Your task to perform on an android device: delete browsing data in the chrome app Image 0: 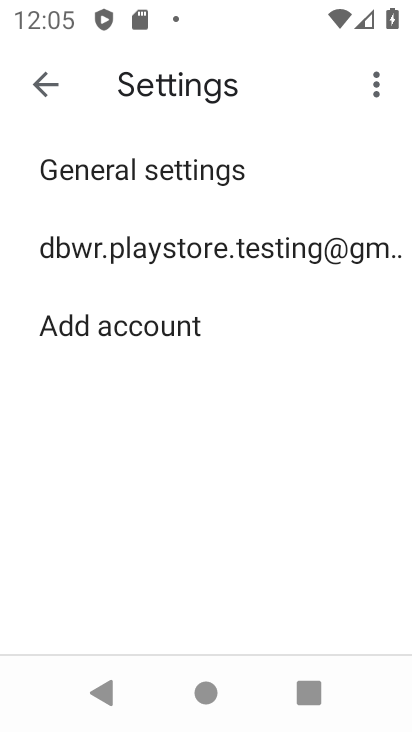
Step 0: press back button
Your task to perform on an android device: delete browsing data in the chrome app Image 1: 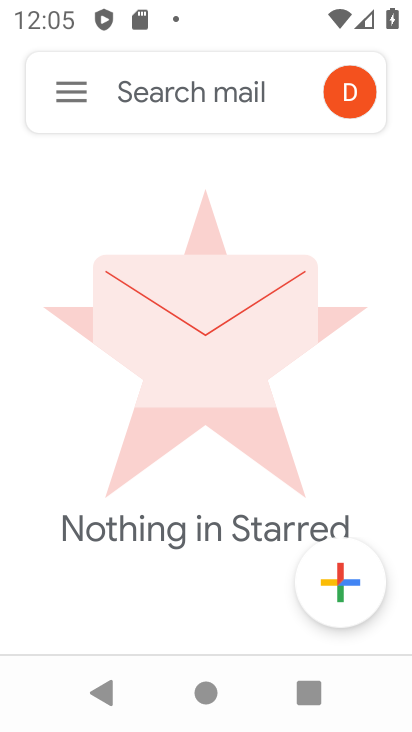
Step 1: press home button
Your task to perform on an android device: delete browsing data in the chrome app Image 2: 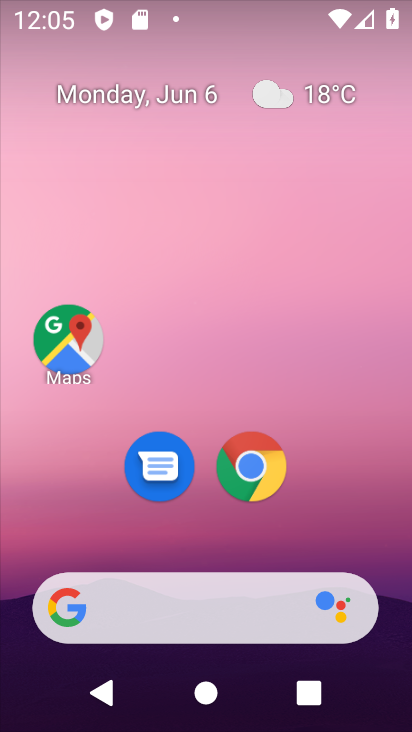
Step 2: drag from (394, 651) to (324, 82)
Your task to perform on an android device: delete browsing data in the chrome app Image 3: 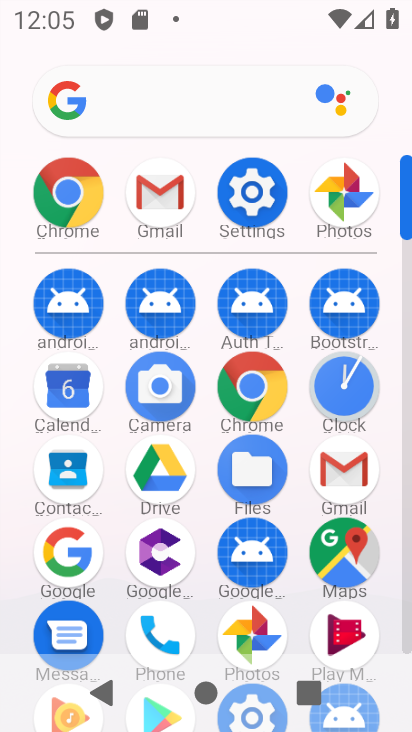
Step 3: drag from (1, 549) to (41, 269)
Your task to perform on an android device: delete browsing data in the chrome app Image 4: 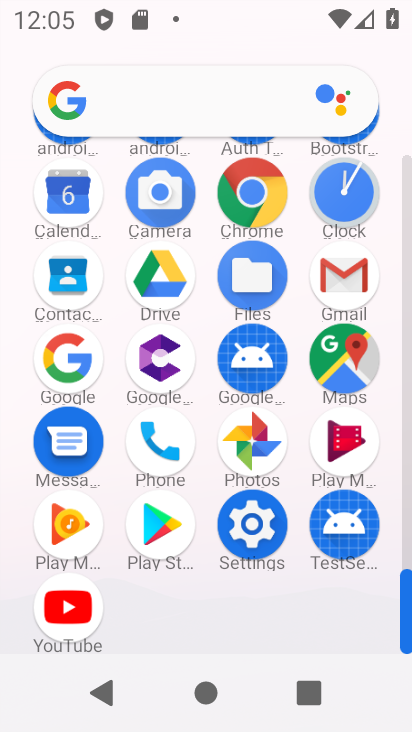
Step 4: click (249, 186)
Your task to perform on an android device: delete browsing data in the chrome app Image 5: 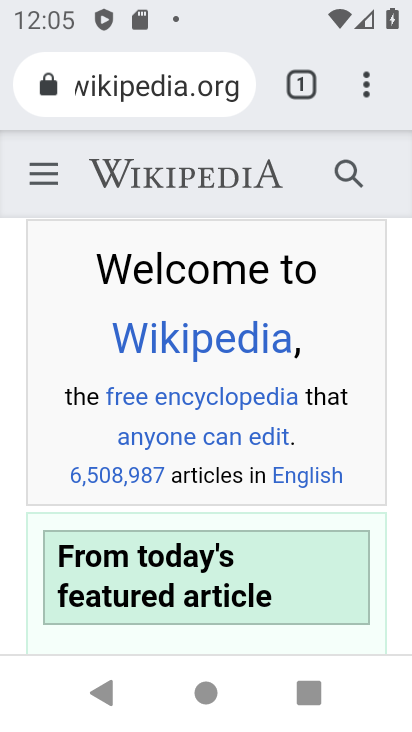
Step 5: drag from (362, 78) to (159, 474)
Your task to perform on an android device: delete browsing data in the chrome app Image 6: 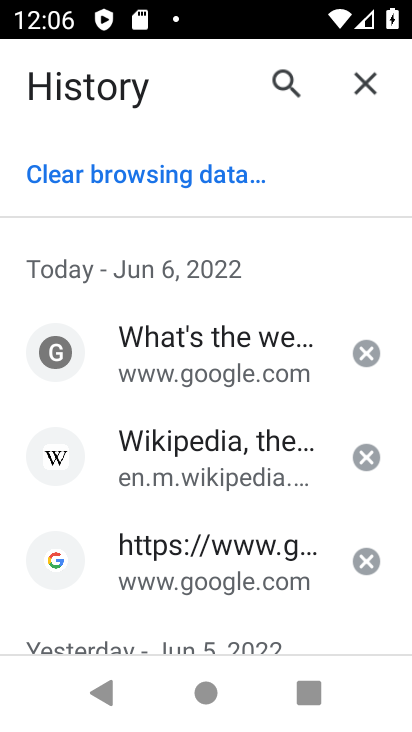
Step 6: click (186, 181)
Your task to perform on an android device: delete browsing data in the chrome app Image 7: 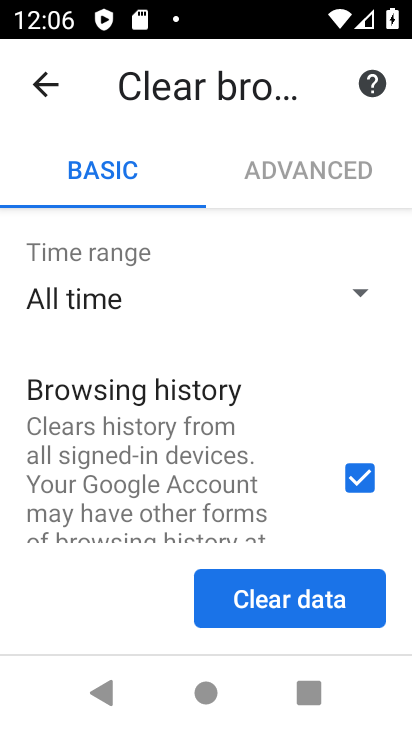
Step 7: click (270, 588)
Your task to perform on an android device: delete browsing data in the chrome app Image 8: 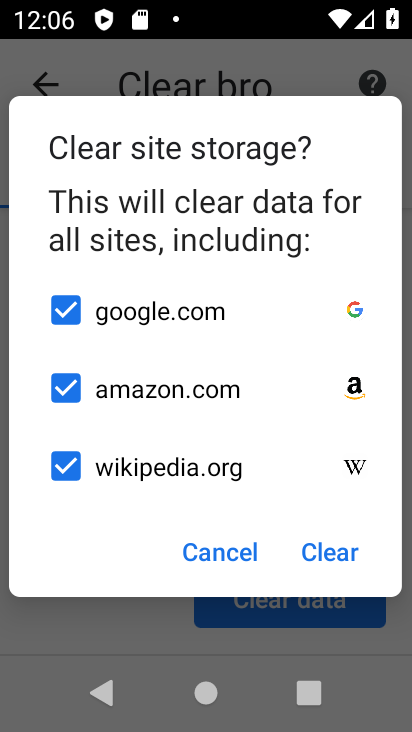
Step 8: click (327, 560)
Your task to perform on an android device: delete browsing data in the chrome app Image 9: 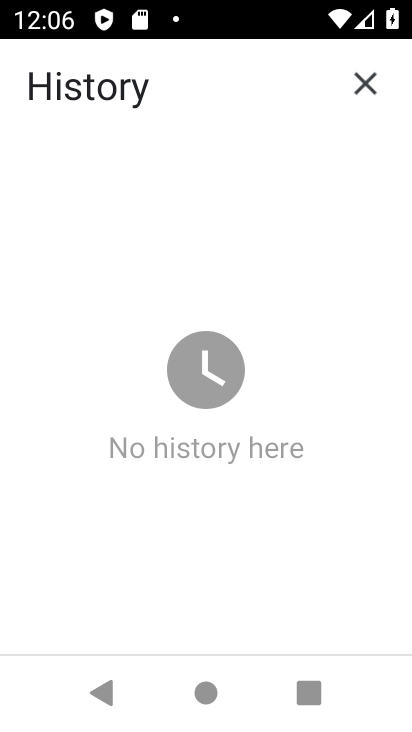
Step 9: task complete